Your task to perform on an android device: open a new tab in the chrome app Image 0: 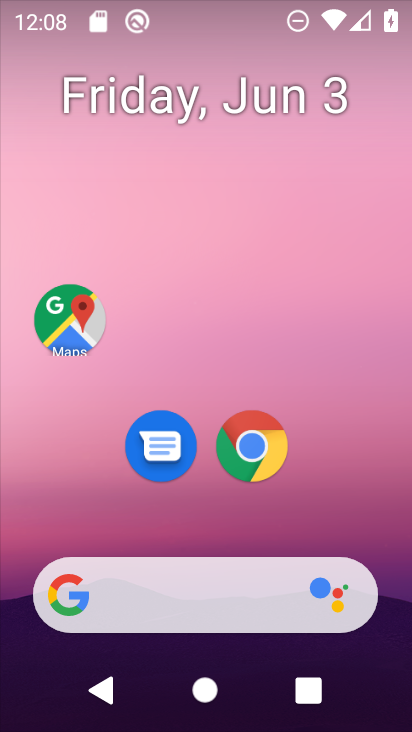
Step 0: drag from (269, 700) to (289, 222)
Your task to perform on an android device: open a new tab in the chrome app Image 1: 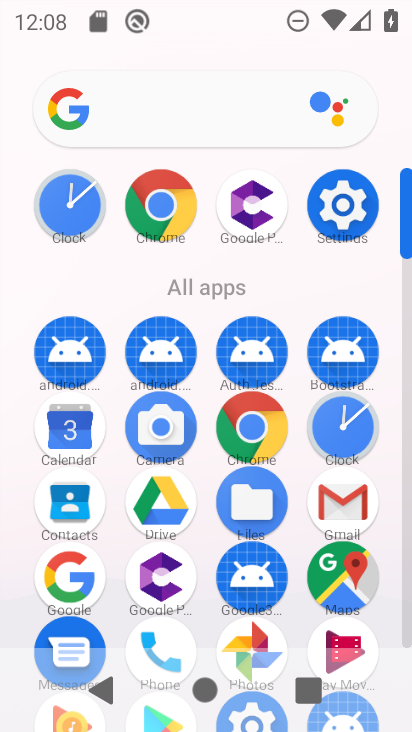
Step 1: click (166, 216)
Your task to perform on an android device: open a new tab in the chrome app Image 2: 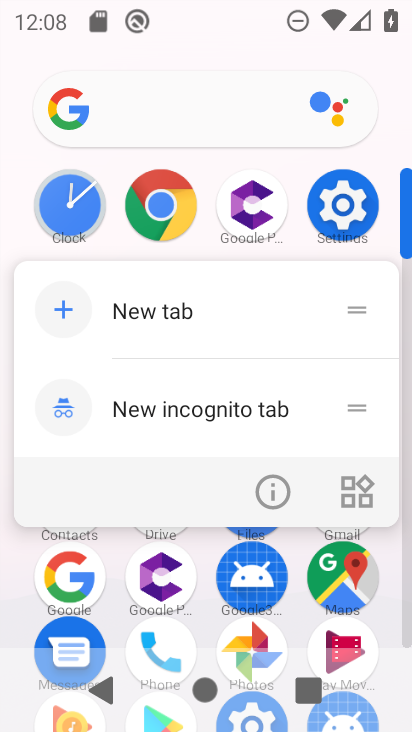
Step 2: click (166, 322)
Your task to perform on an android device: open a new tab in the chrome app Image 3: 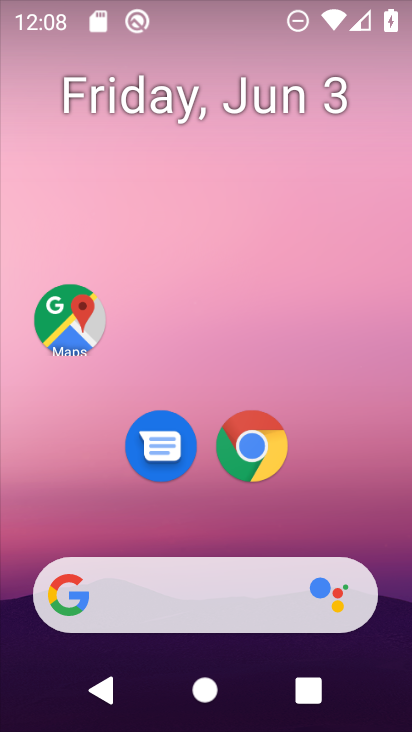
Step 3: drag from (260, 672) to (137, 257)
Your task to perform on an android device: open a new tab in the chrome app Image 4: 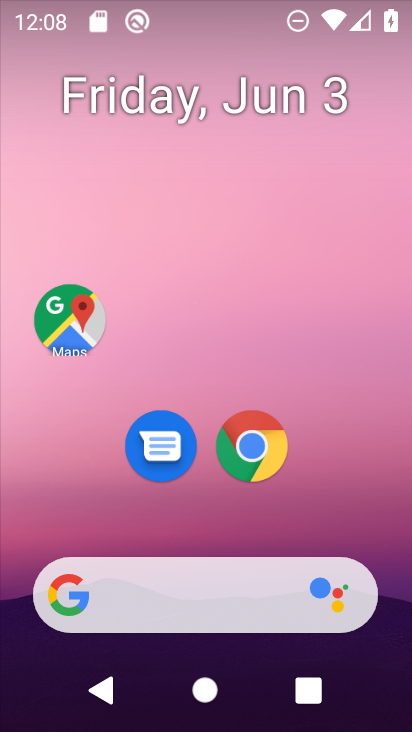
Step 4: drag from (253, 676) to (224, 186)
Your task to perform on an android device: open a new tab in the chrome app Image 5: 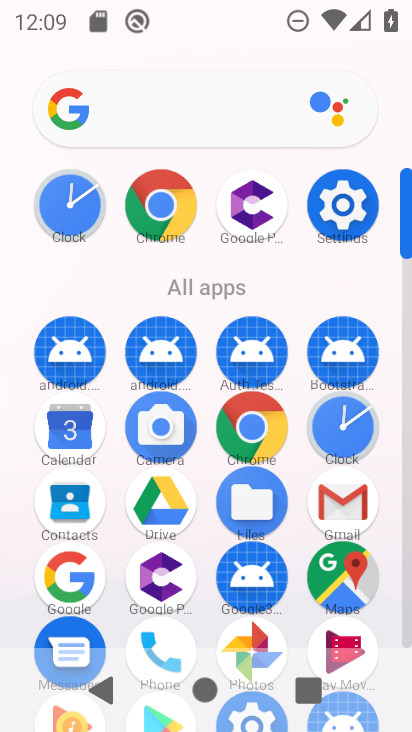
Step 5: click (149, 214)
Your task to perform on an android device: open a new tab in the chrome app Image 6: 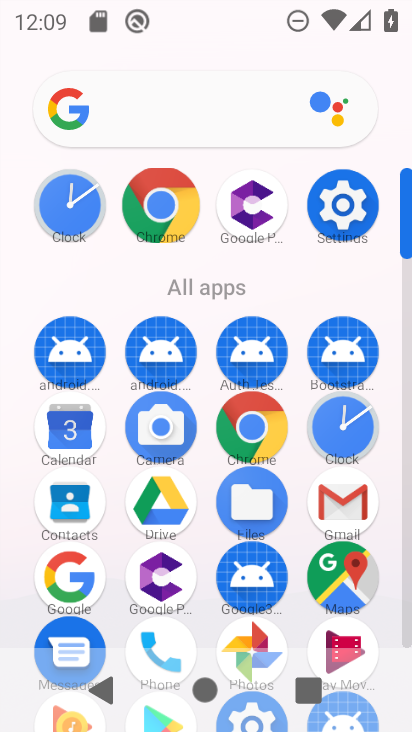
Step 6: click (159, 206)
Your task to perform on an android device: open a new tab in the chrome app Image 7: 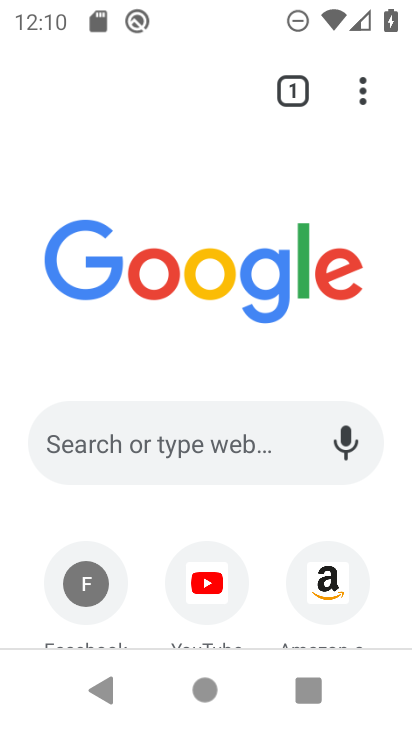
Step 7: click (364, 97)
Your task to perform on an android device: open a new tab in the chrome app Image 8: 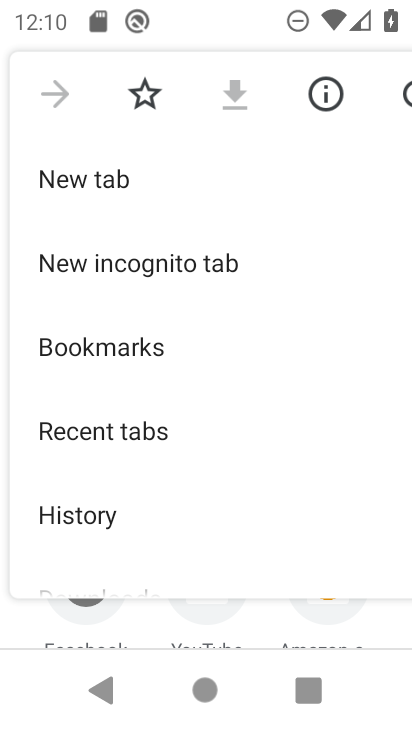
Step 8: press back button
Your task to perform on an android device: open a new tab in the chrome app Image 9: 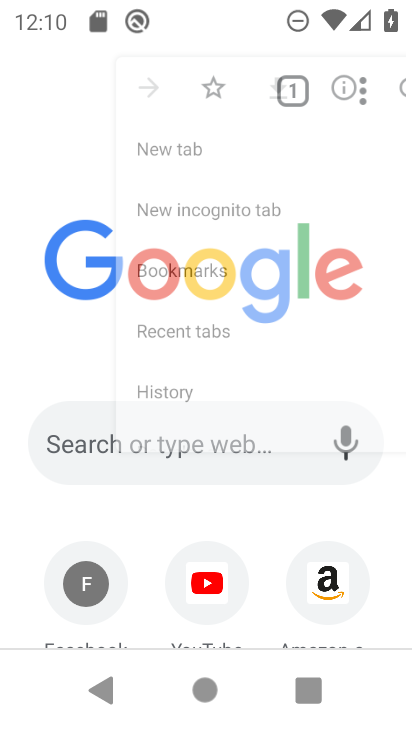
Step 9: press back button
Your task to perform on an android device: open a new tab in the chrome app Image 10: 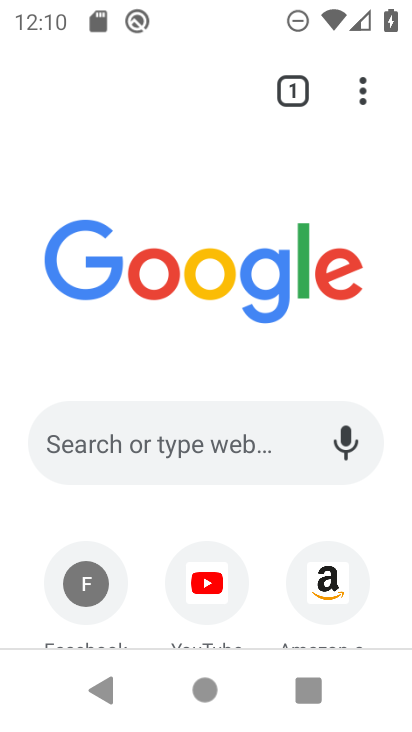
Step 10: press back button
Your task to perform on an android device: open a new tab in the chrome app Image 11: 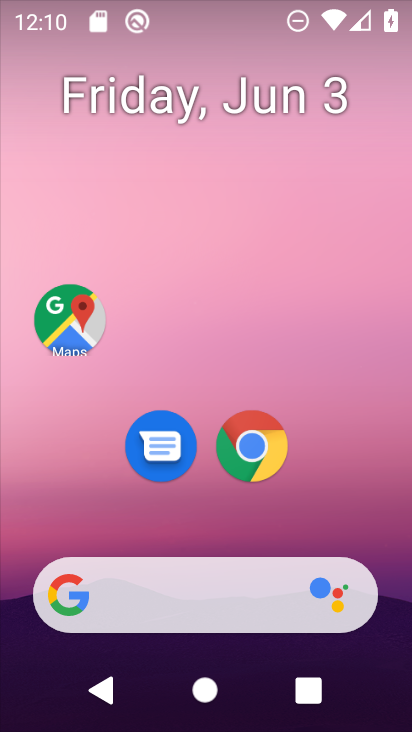
Step 11: drag from (263, 653) to (206, 172)
Your task to perform on an android device: open a new tab in the chrome app Image 12: 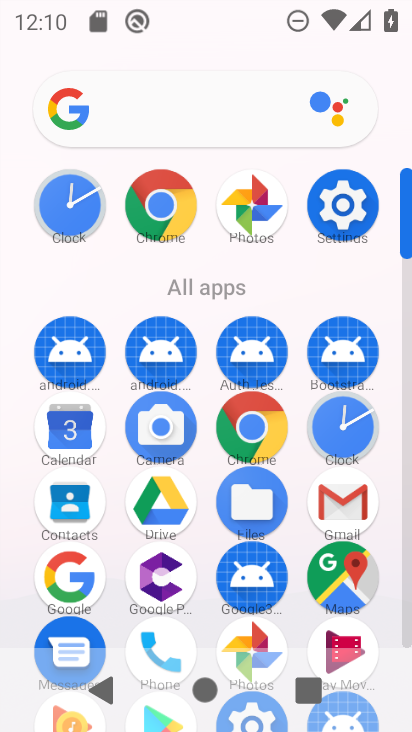
Step 12: click (168, 209)
Your task to perform on an android device: open a new tab in the chrome app Image 13: 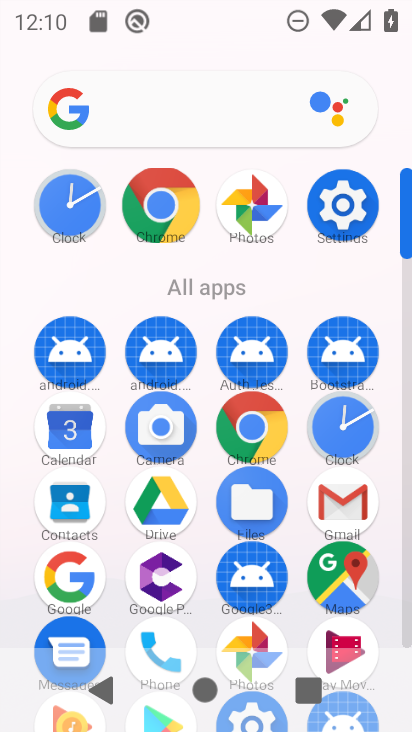
Step 13: click (168, 209)
Your task to perform on an android device: open a new tab in the chrome app Image 14: 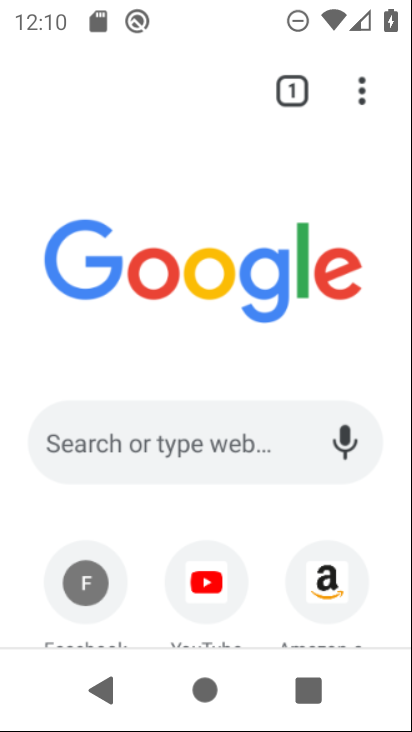
Step 14: click (167, 209)
Your task to perform on an android device: open a new tab in the chrome app Image 15: 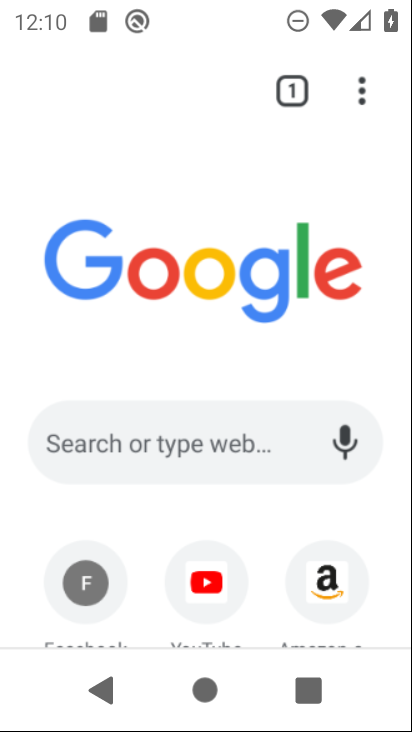
Step 15: click (167, 209)
Your task to perform on an android device: open a new tab in the chrome app Image 16: 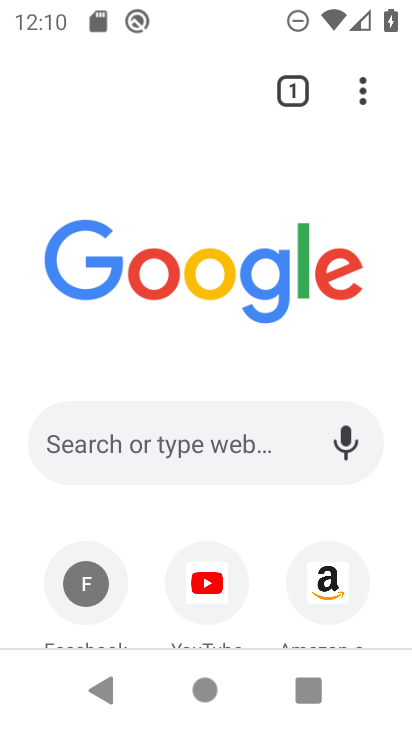
Step 16: drag from (353, 101) to (60, 173)
Your task to perform on an android device: open a new tab in the chrome app Image 17: 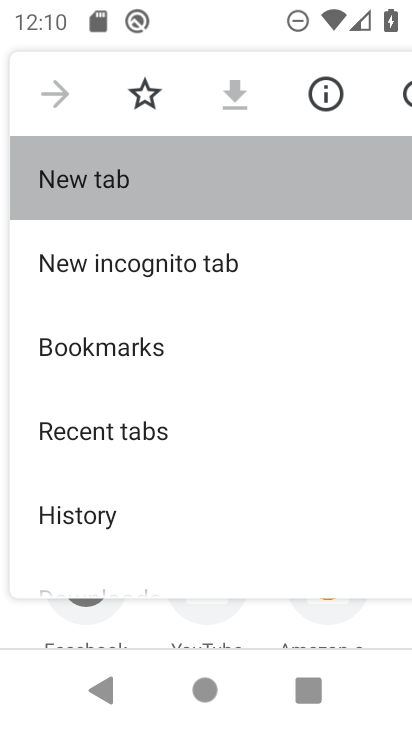
Step 17: click (60, 172)
Your task to perform on an android device: open a new tab in the chrome app Image 18: 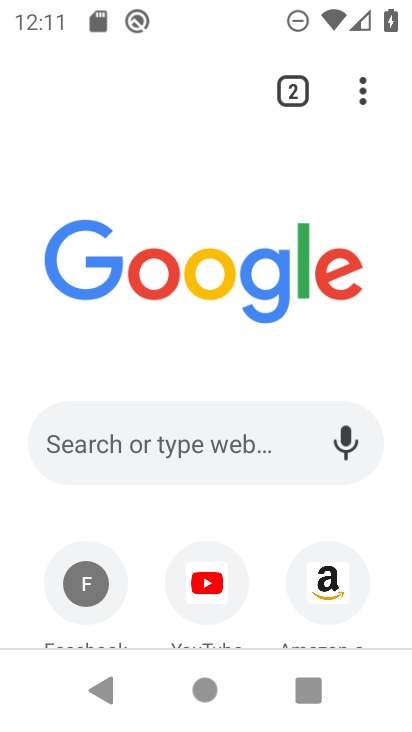
Step 18: task complete